Your task to perform on an android device: Go to Maps Image 0: 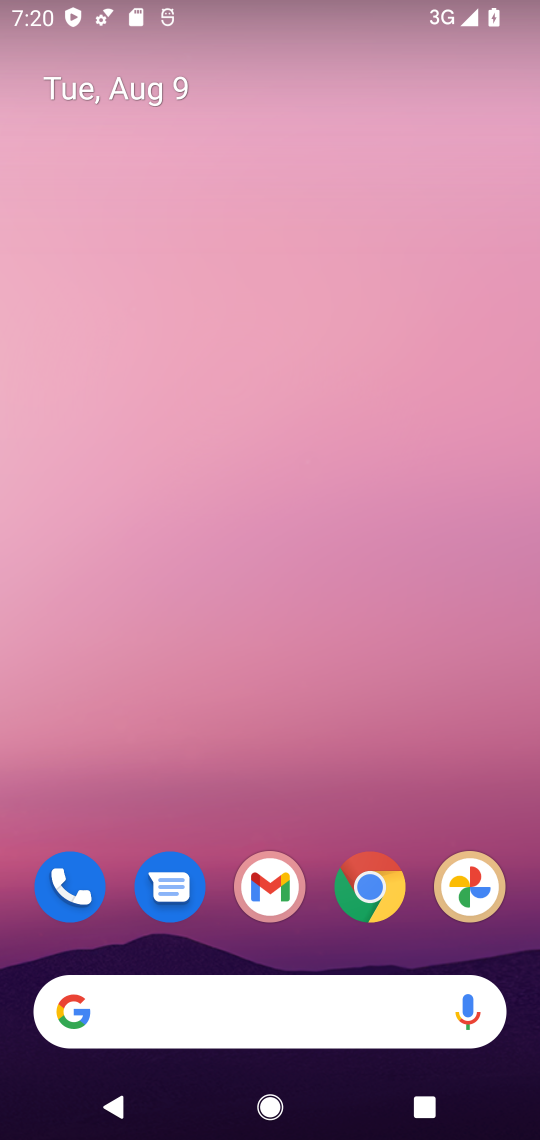
Step 0: drag from (281, 764) to (291, 1)
Your task to perform on an android device: Go to Maps Image 1: 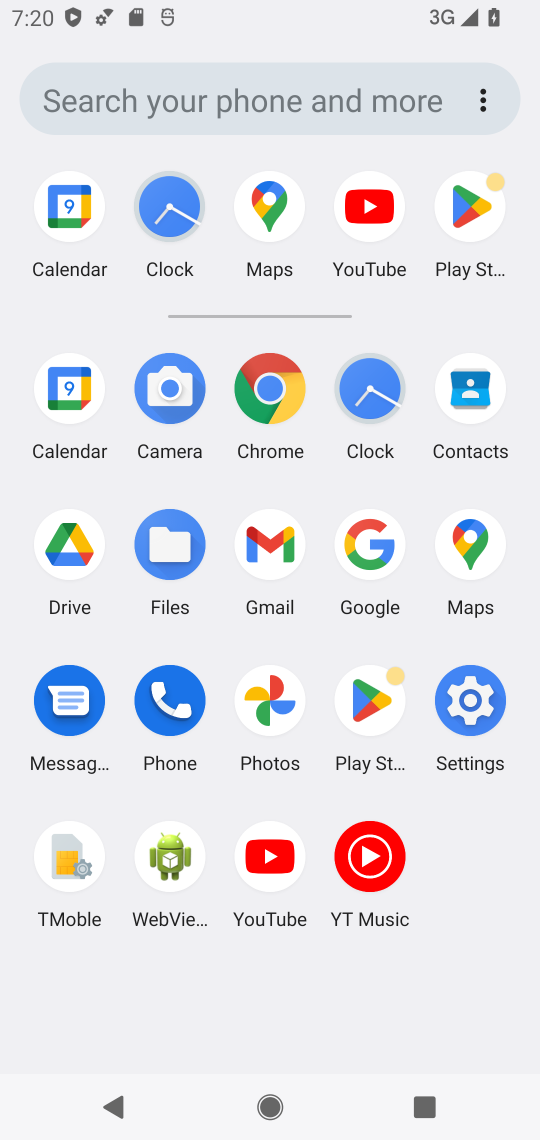
Step 1: click (270, 195)
Your task to perform on an android device: Go to Maps Image 2: 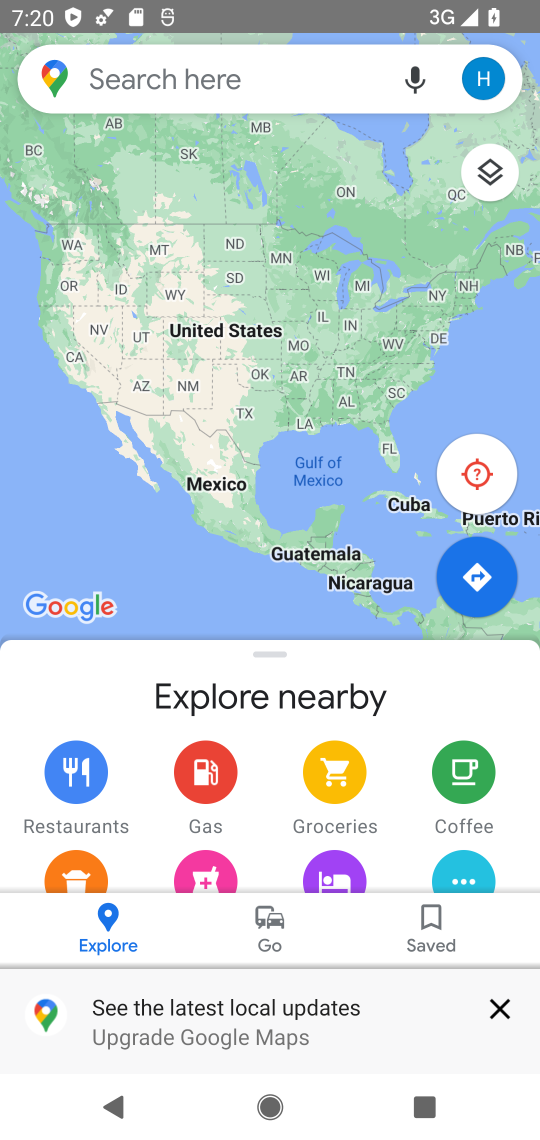
Step 2: task complete